Your task to perform on an android device: change the clock display to analog Image 0: 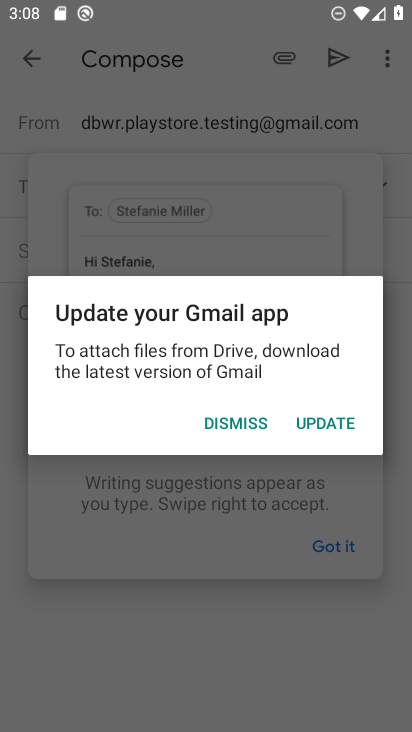
Step 0: click (244, 429)
Your task to perform on an android device: change the clock display to analog Image 1: 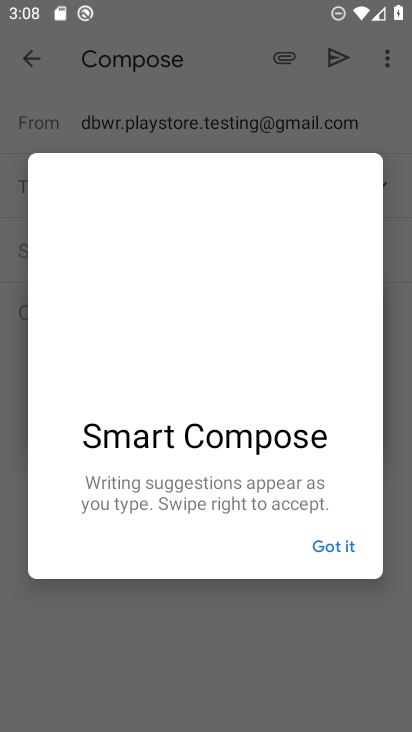
Step 1: press home button
Your task to perform on an android device: change the clock display to analog Image 2: 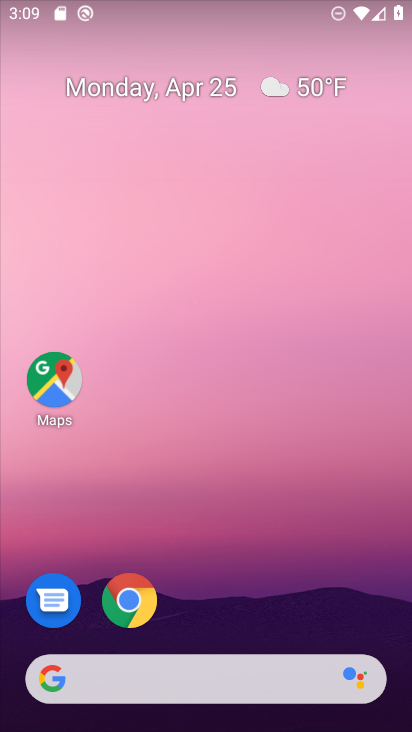
Step 2: drag from (202, 631) to (135, 54)
Your task to perform on an android device: change the clock display to analog Image 3: 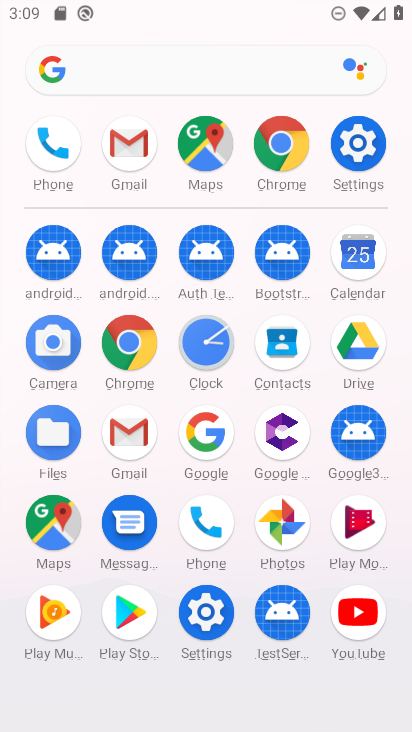
Step 3: click (220, 347)
Your task to perform on an android device: change the clock display to analog Image 4: 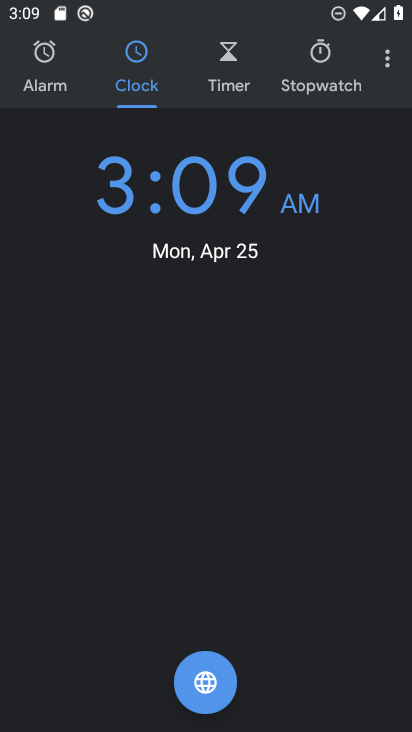
Step 4: click (384, 71)
Your task to perform on an android device: change the clock display to analog Image 5: 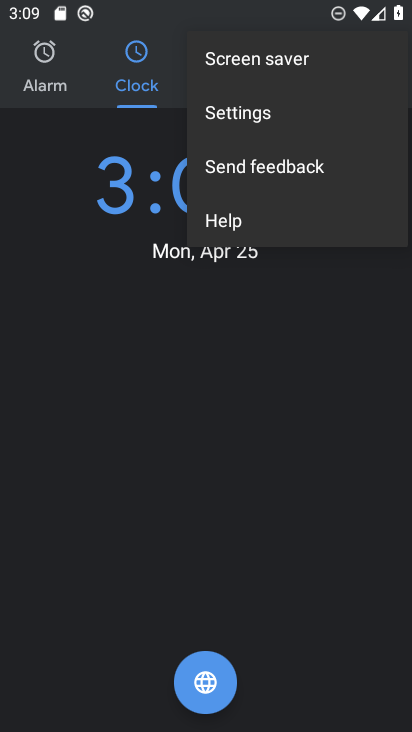
Step 5: click (225, 122)
Your task to perform on an android device: change the clock display to analog Image 6: 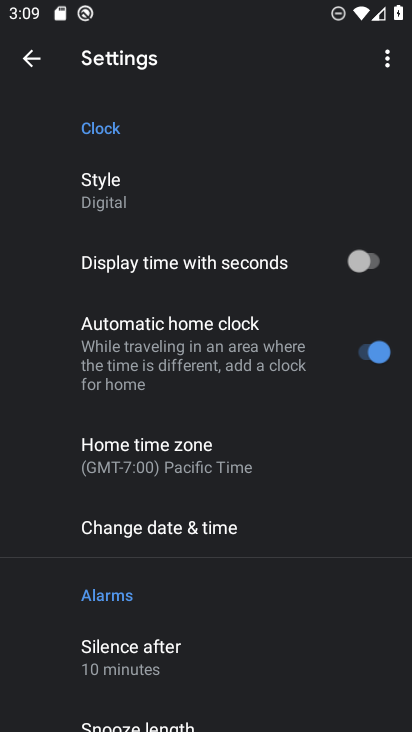
Step 6: click (170, 202)
Your task to perform on an android device: change the clock display to analog Image 7: 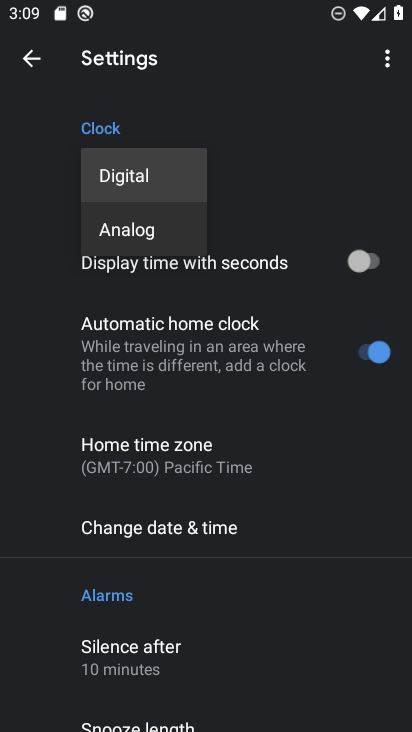
Step 7: click (150, 221)
Your task to perform on an android device: change the clock display to analog Image 8: 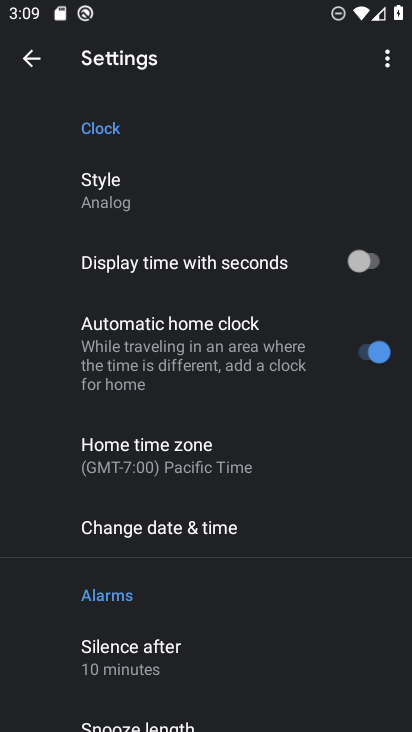
Step 8: task complete